Your task to perform on an android device: Open Chrome and go to settings Image 0: 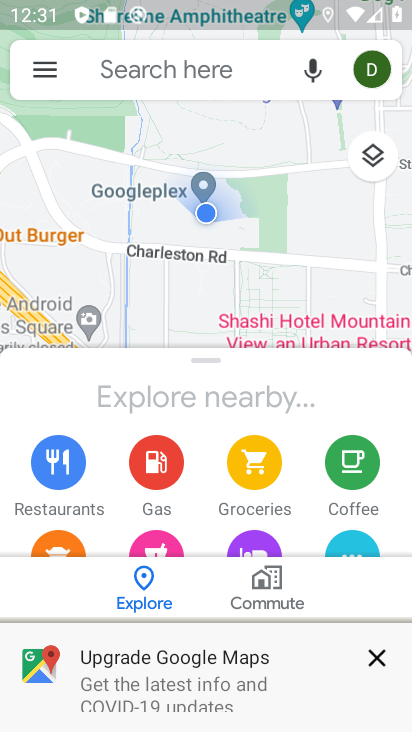
Step 0: click (245, 180)
Your task to perform on an android device: Open Chrome and go to settings Image 1: 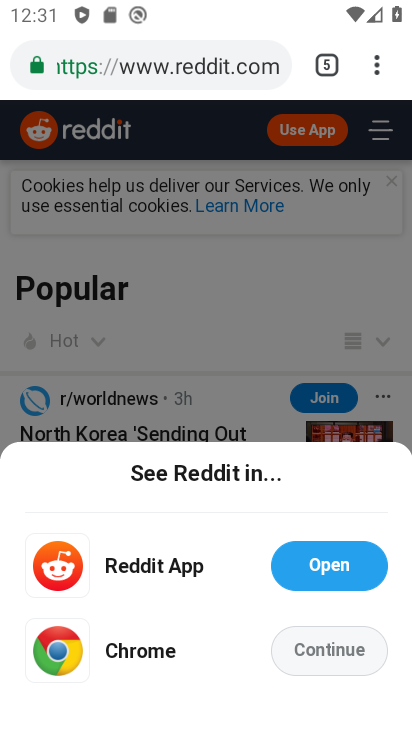
Step 1: task complete